Your task to perform on an android device: delete a single message in the gmail app Image 0: 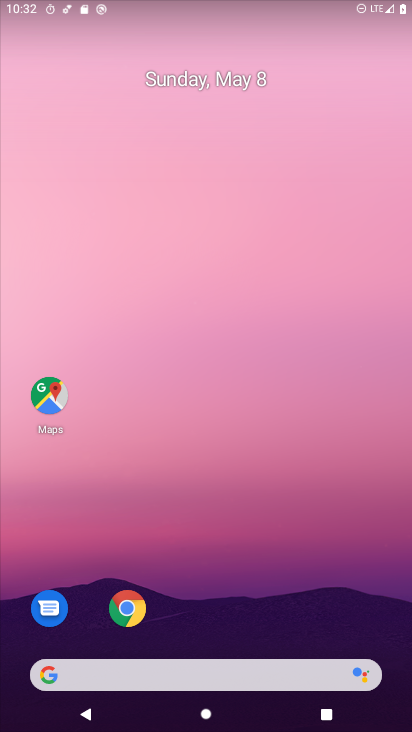
Step 0: drag from (218, 620) to (228, 255)
Your task to perform on an android device: delete a single message in the gmail app Image 1: 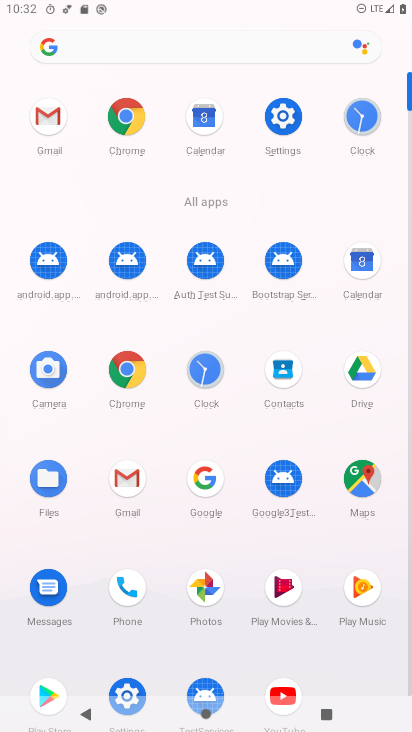
Step 1: click (127, 483)
Your task to perform on an android device: delete a single message in the gmail app Image 2: 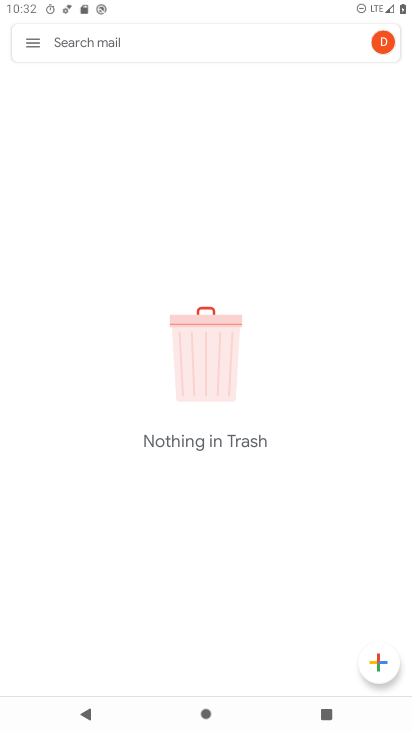
Step 2: click (29, 39)
Your task to perform on an android device: delete a single message in the gmail app Image 3: 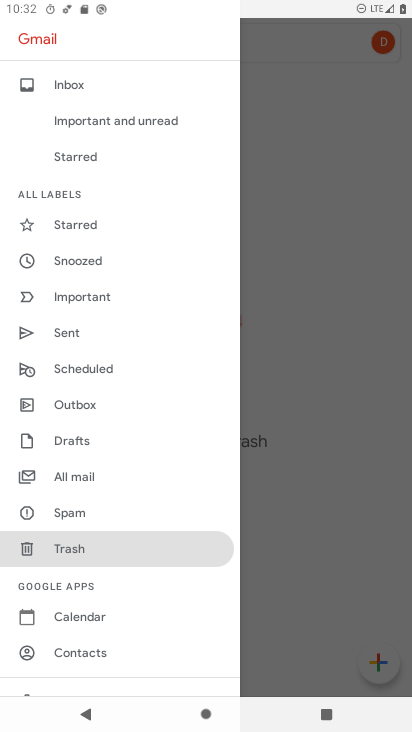
Step 3: click (78, 469)
Your task to perform on an android device: delete a single message in the gmail app Image 4: 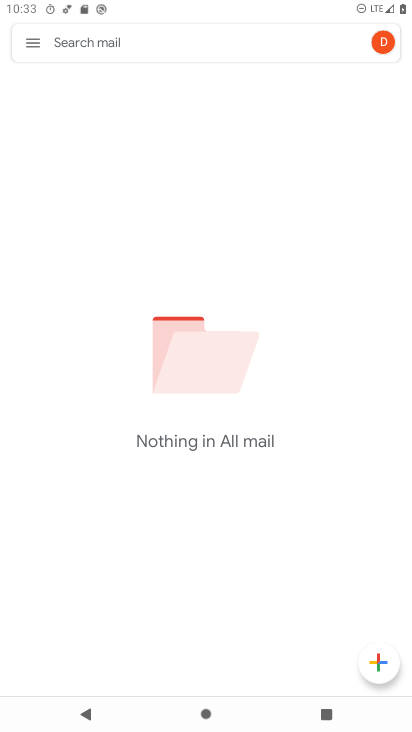
Step 4: task complete